Your task to perform on an android device: Open Google Maps and go to "Timeline" Image 0: 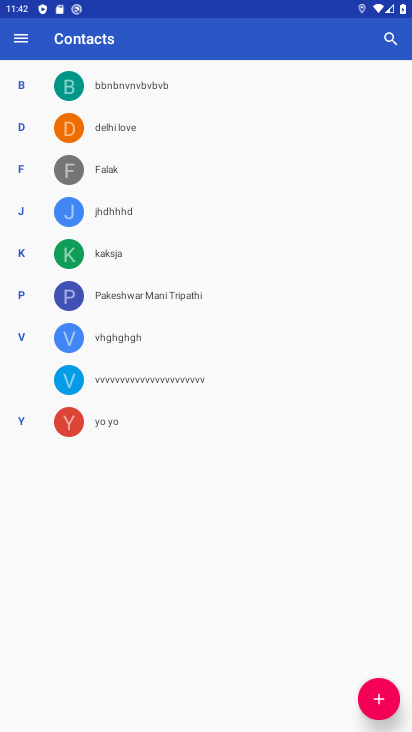
Step 0: press home button
Your task to perform on an android device: Open Google Maps and go to "Timeline" Image 1: 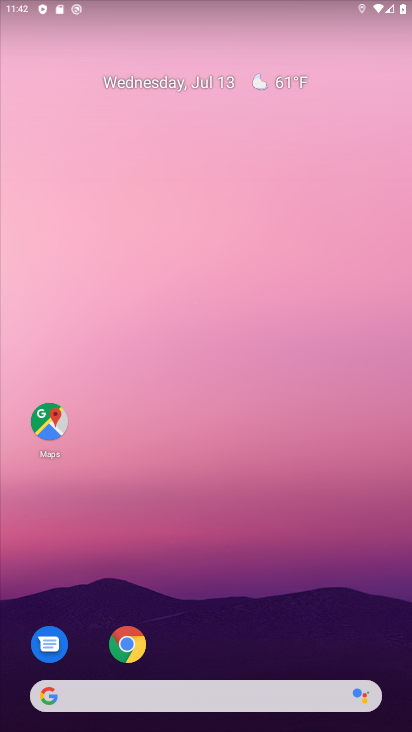
Step 1: click (51, 422)
Your task to perform on an android device: Open Google Maps and go to "Timeline" Image 2: 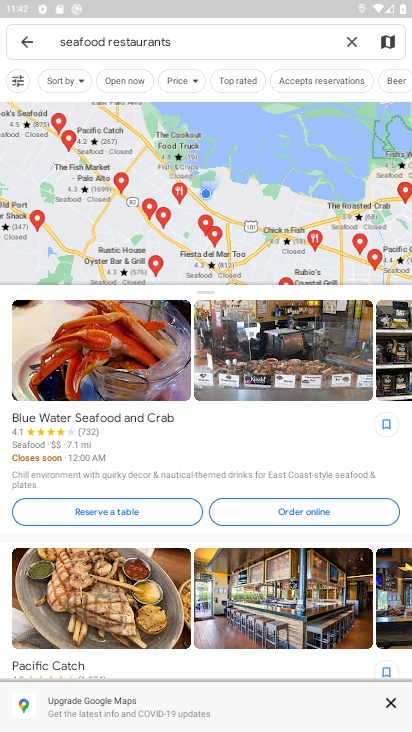
Step 2: click (354, 42)
Your task to perform on an android device: Open Google Maps and go to "Timeline" Image 3: 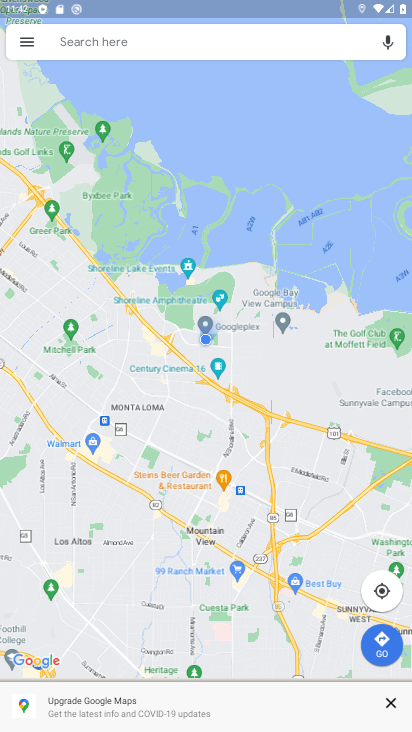
Step 3: click (23, 37)
Your task to perform on an android device: Open Google Maps and go to "Timeline" Image 4: 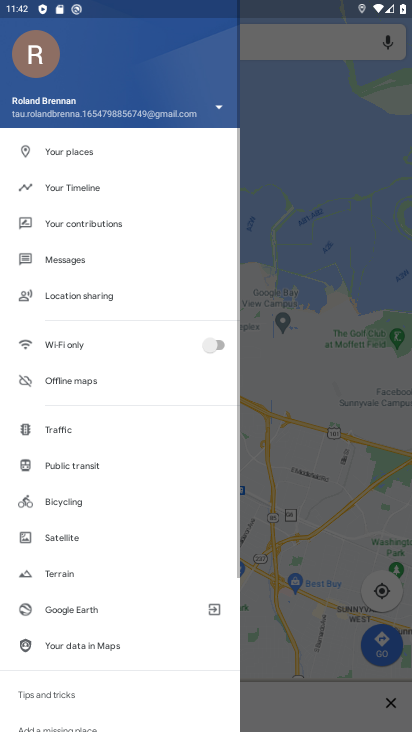
Step 4: click (86, 190)
Your task to perform on an android device: Open Google Maps and go to "Timeline" Image 5: 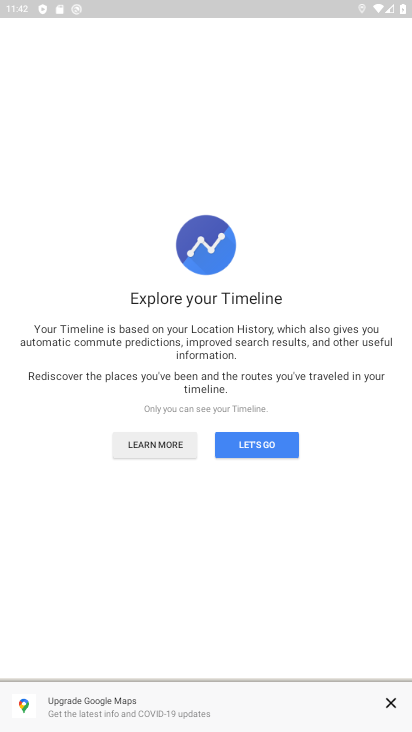
Step 5: click (223, 448)
Your task to perform on an android device: Open Google Maps and go to "Timeline" Image 6: 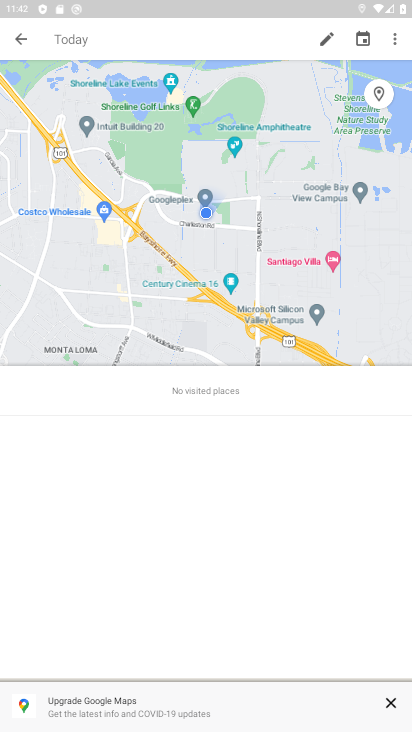
Step 6: task complete